Your task to perform on an android device: Show me popular games on the Play Store Image 0: 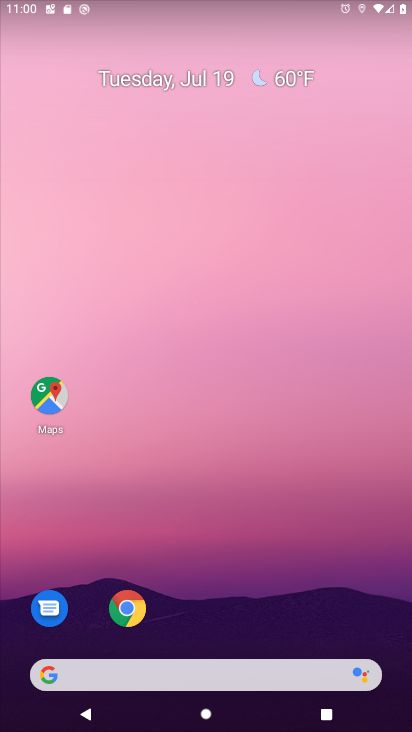
Step 0: drag from (193, 640) to (378, 117)
Your task to perform on an android device: Show me popular games on the Play Store Image 1: 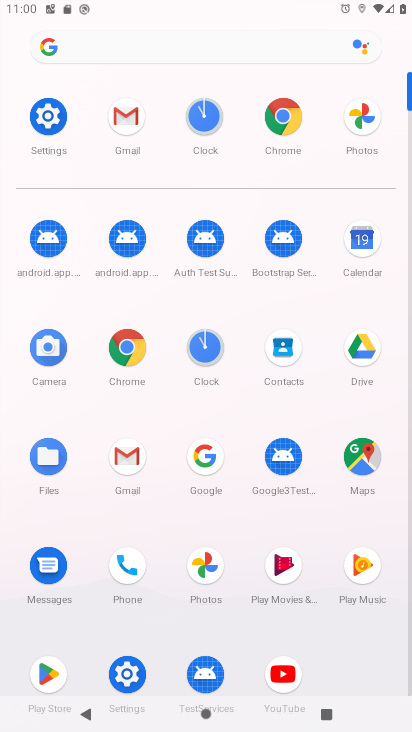
Step 1: click (28, 676)
Your task to perform on an android device: Show me popular games on the Play Store Image 2: 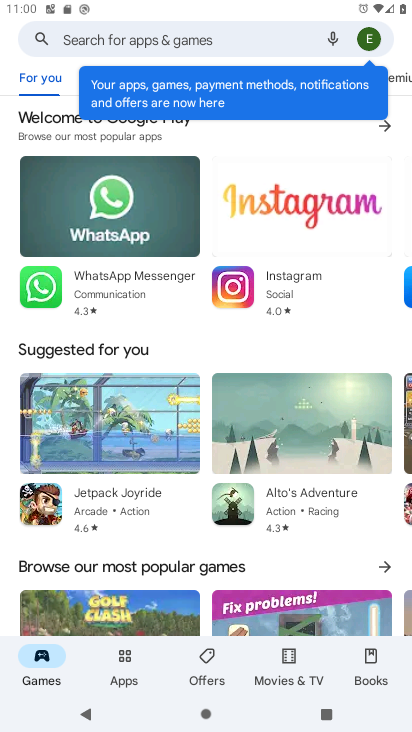
Step 2: click (383, 565)
Your task to perform on an android device: Show me popular games on the Play Store Image 3: 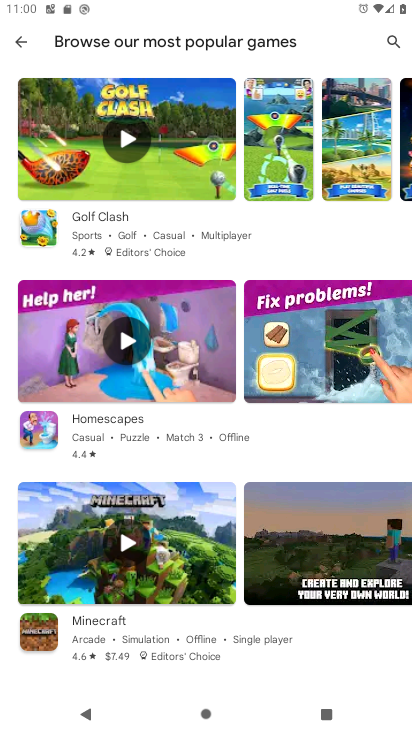
Step 3: task complete